Your task to perform on an android device: delete location history Image 0: 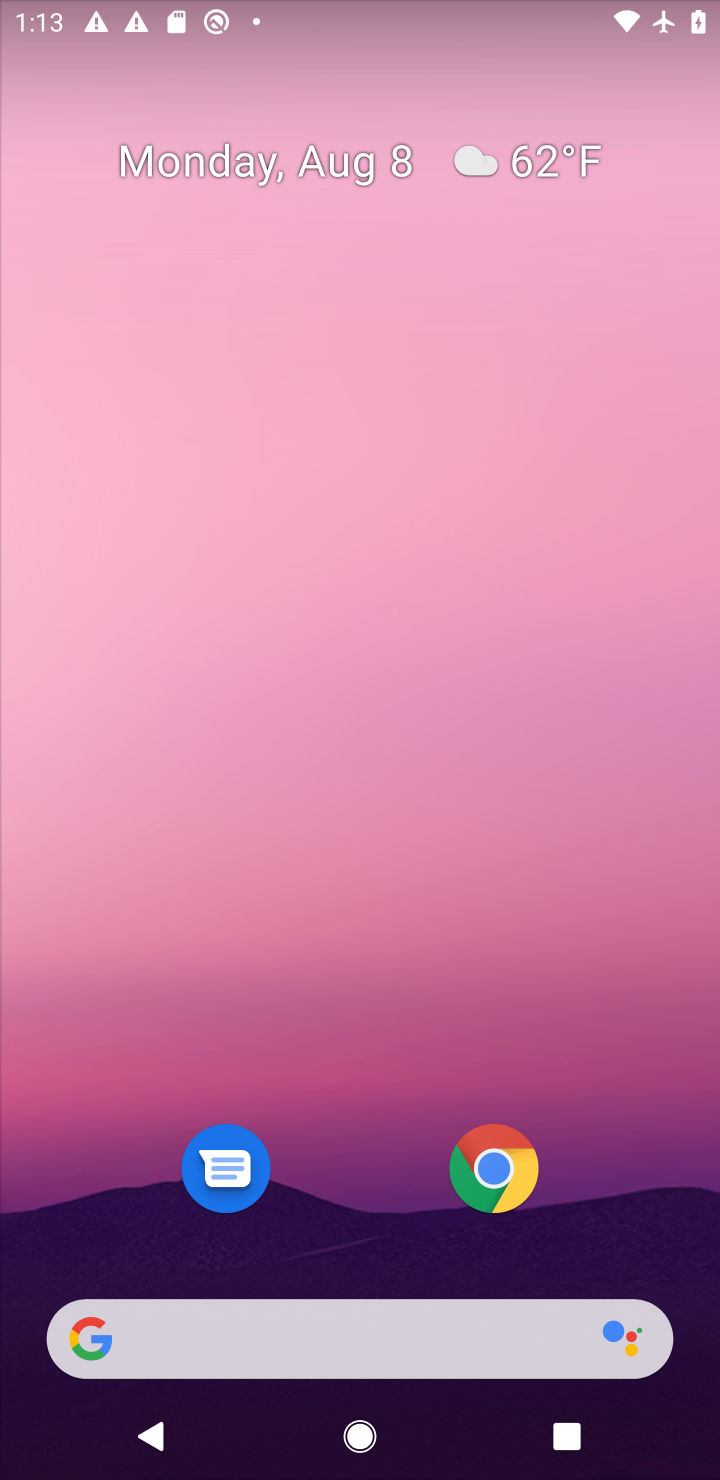
Step 0: drag from (393, 1285) to (404, 129)
Your task to perform on an android device: delete location history Image 1: 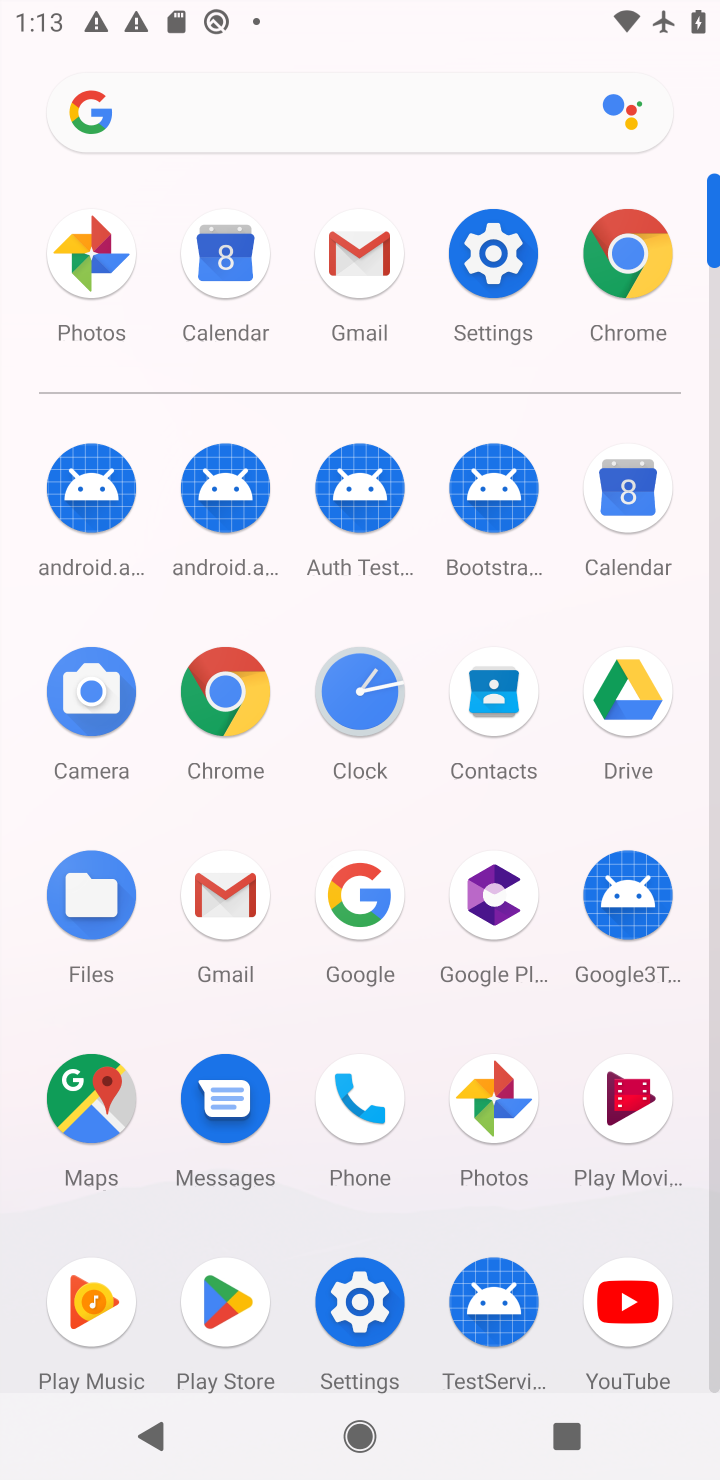
Step 1: click (518, 230)
Your task to perform on an android device: delete location history Image 2: 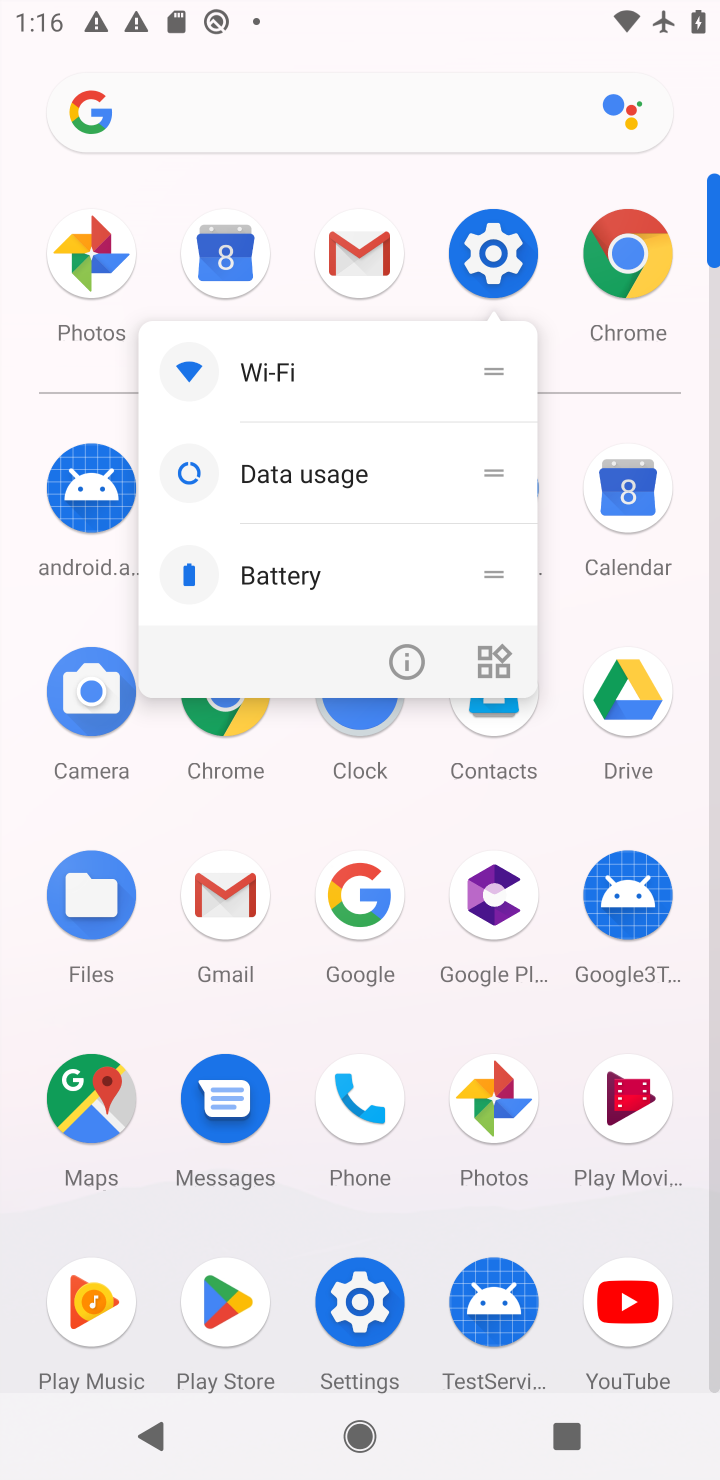
Step 2: task complete